Your task to perform on an android device: see tabs open on other devices in the chrome app Image 0: 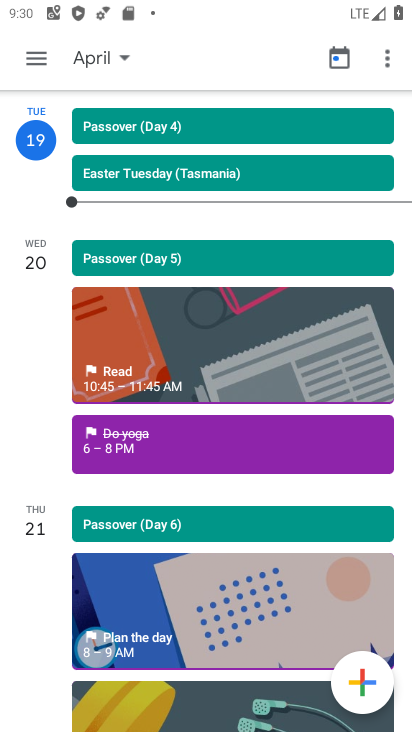
Step 0: press home button
Your task to perform on an android device: see tabs open on other devices in the chrome app Image 1: 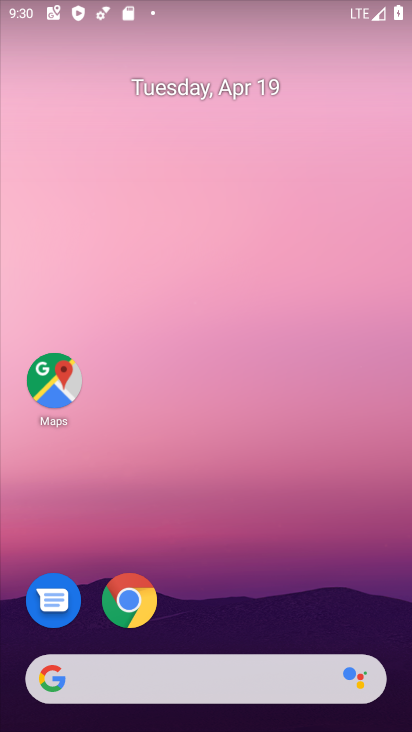
Step 1: drag from (324, 598) to (285, 218)
Your task to perform on an android device: see tabs open on other devices in the chrome app Image 2: 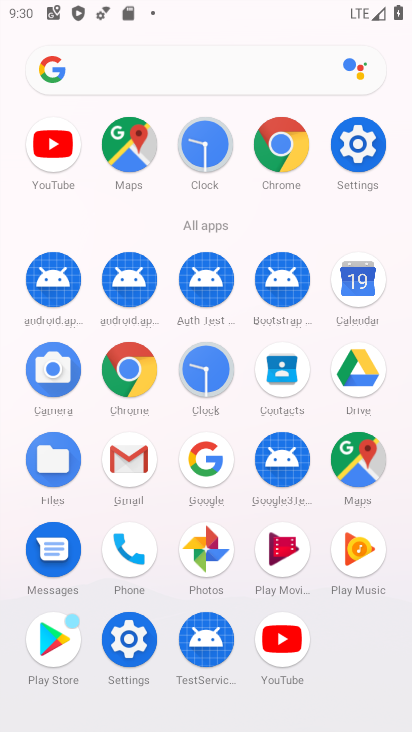
Step 2: click (280, 146)
Your task to perform on an android device: see tabs open on other devices in the chrome app Image 3: 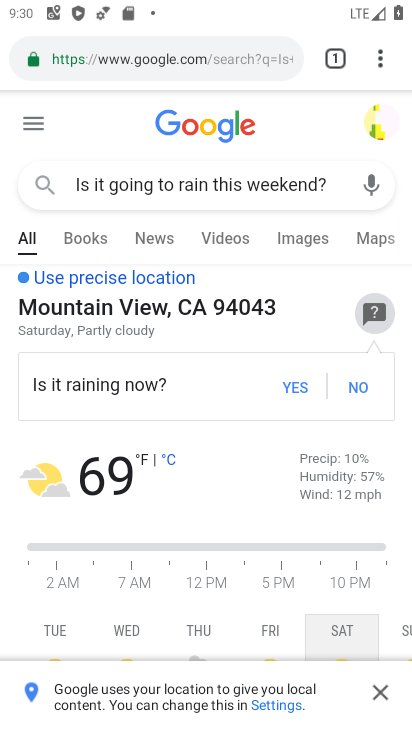
Step 3: click (387, 73)
Your task to perform on an android device: see tabs open on other devices in the chrome app Image 4: 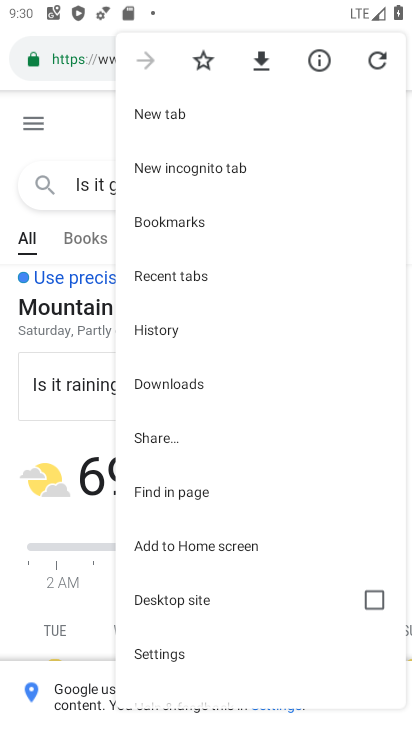
Step 4: drag from (248, 632) to (244, 367)
Your task to perform on an android device: see tabs open on other devices in the chrome app Image 5: 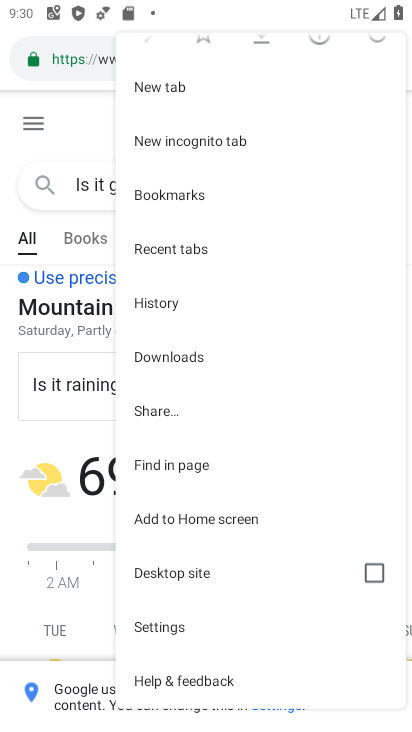
Step 5: click (197, 262)
Your task to perform on an android device: see tabs open on other devices in the chrome app Image 6: 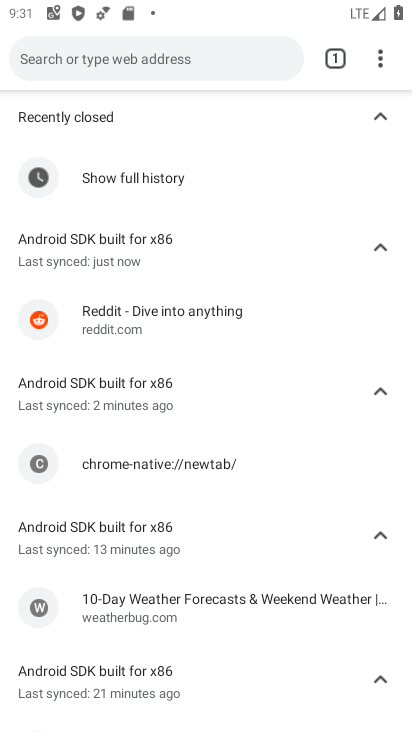
Step 6: task complete